Your task to perform on an android device: Open Reddit.com Image 0: 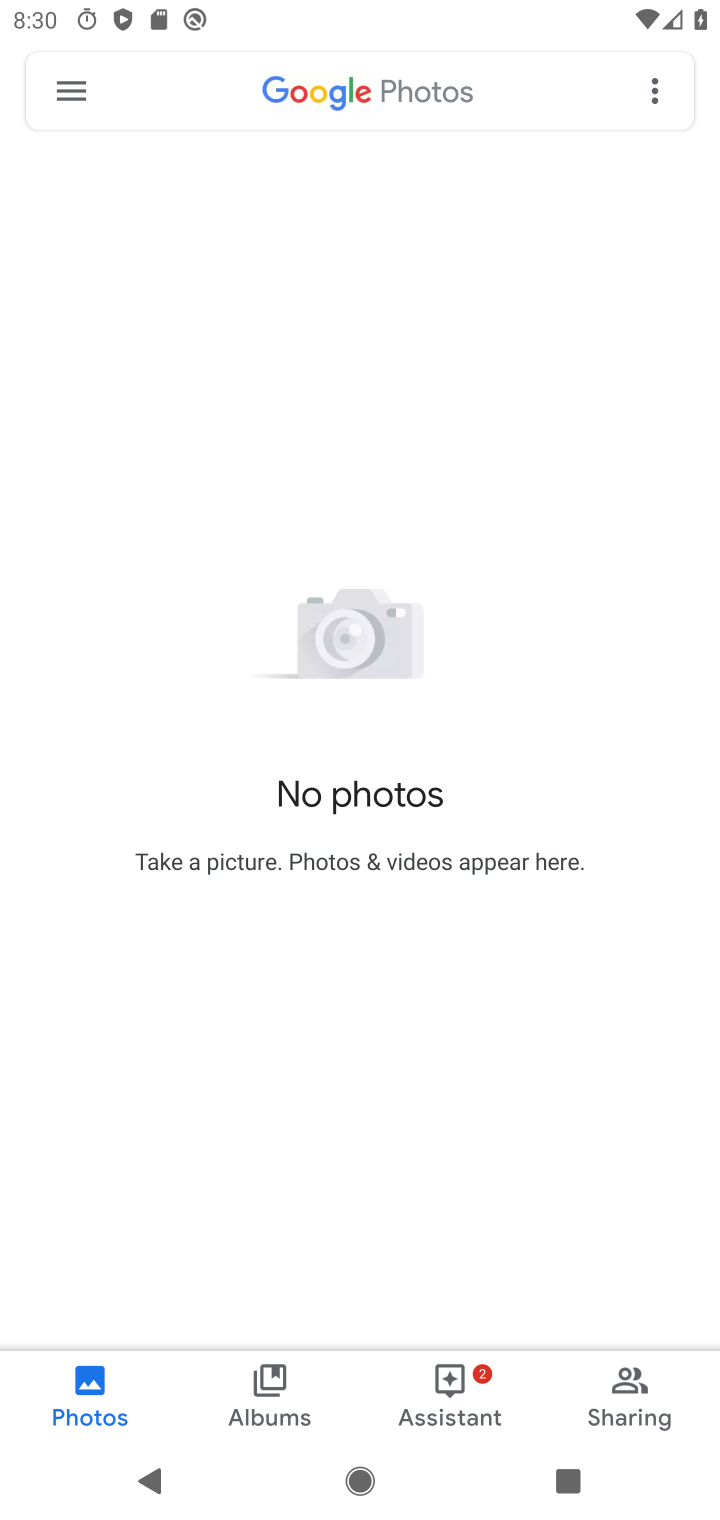
Step 0: press home button
Your task to perform on an android device: Open Reddit.com Image 1: 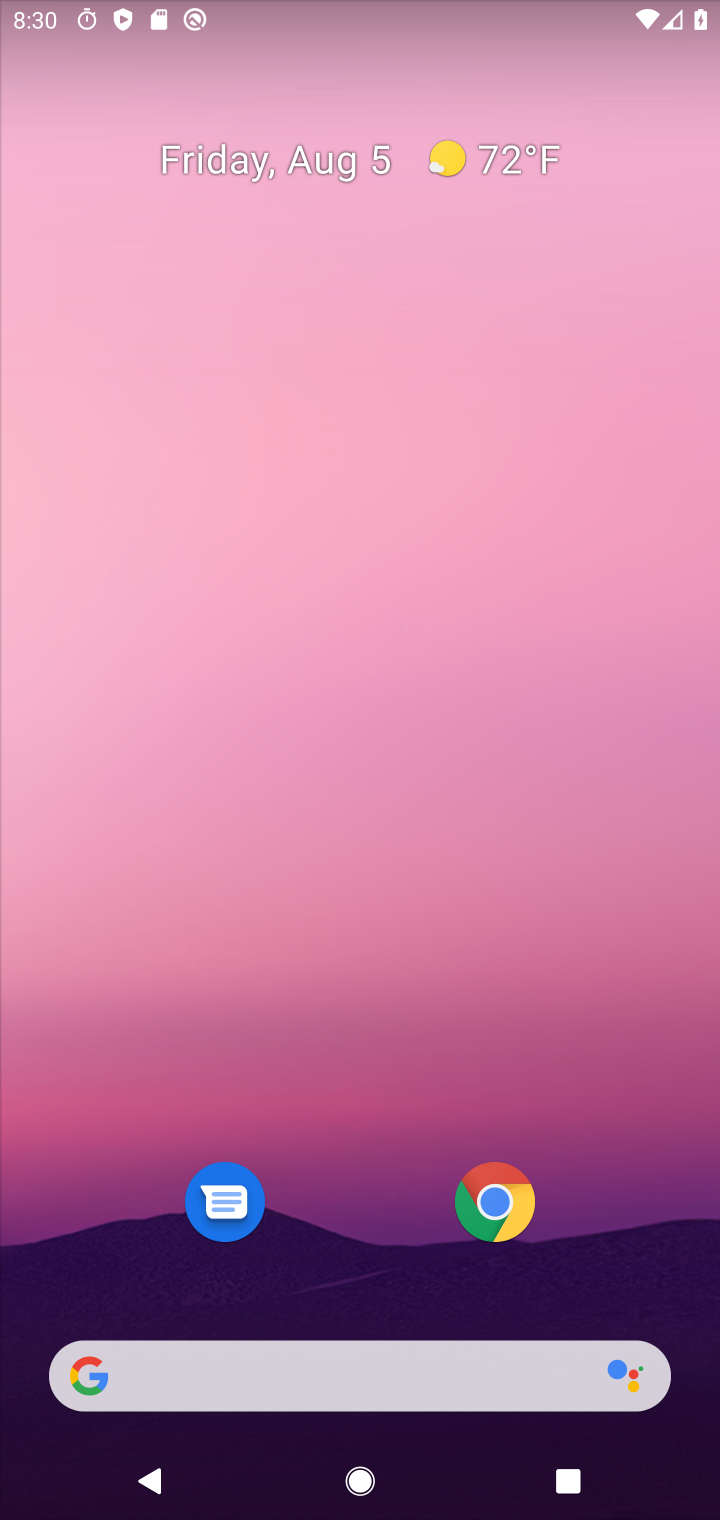
Step 1: click (511, 1214)
Your task to perform on an android device: Open Reddit.com Image 2: 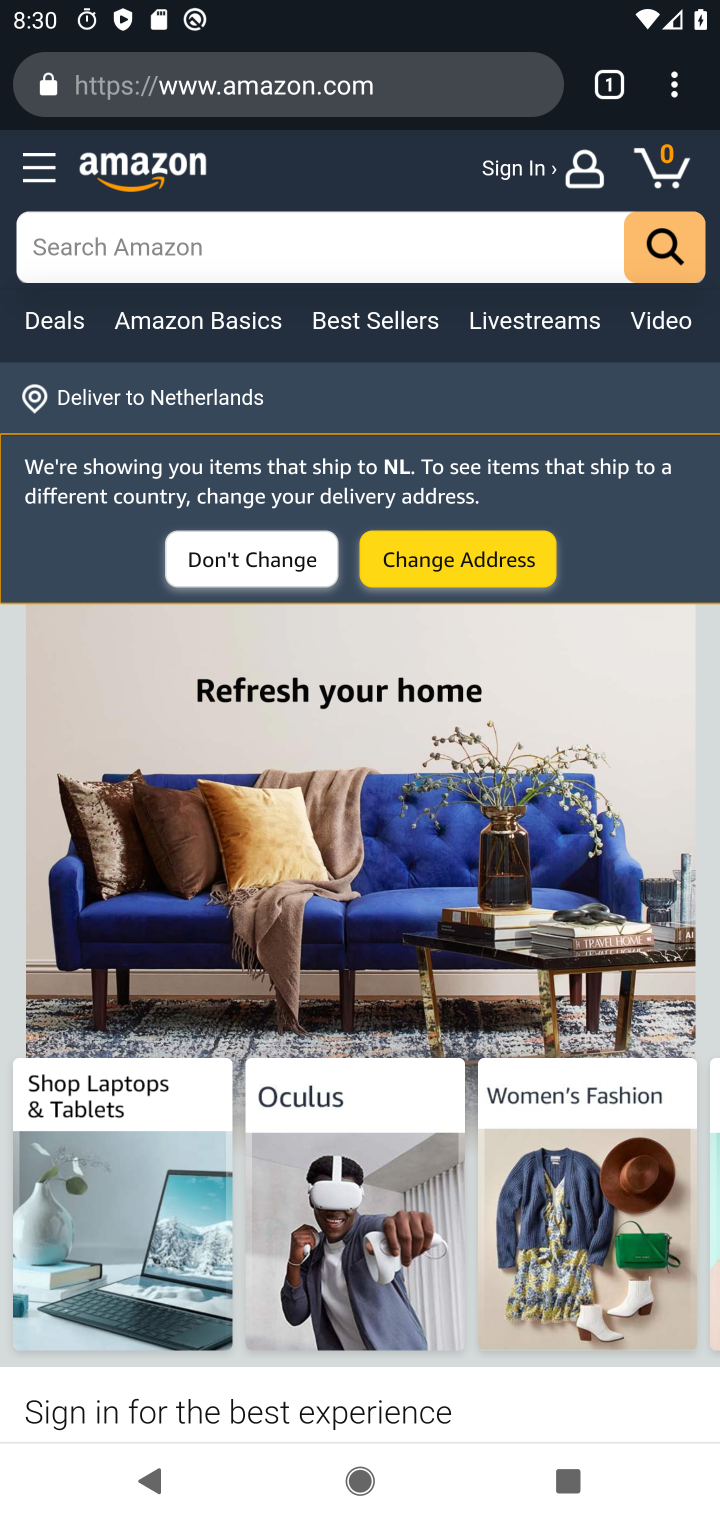
Step 2: click (222, 92)
Your task to perform on an android device: Open Reddit.com Image 3: 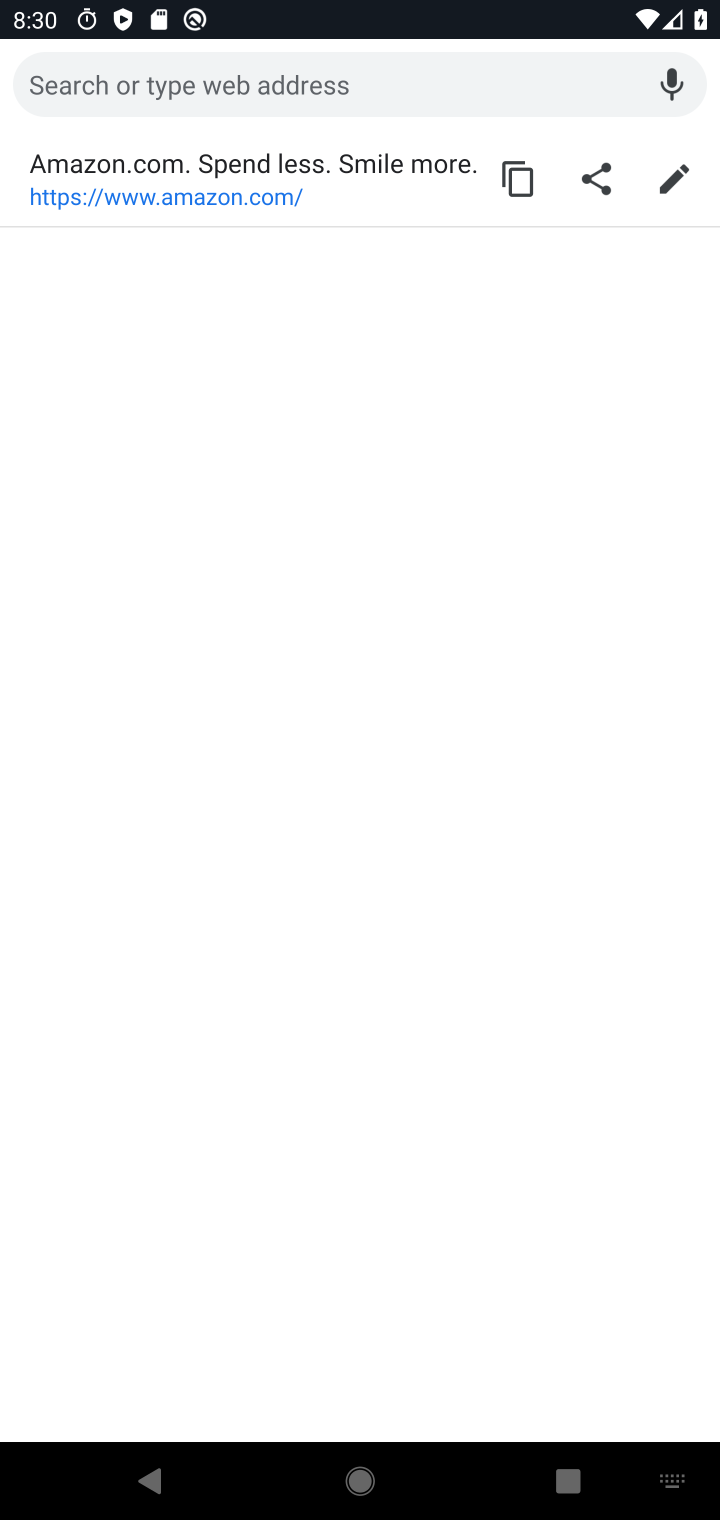
Step 3: type "reddit.com"
Your task to perform on an android device: Open Reddit.com Image 4: 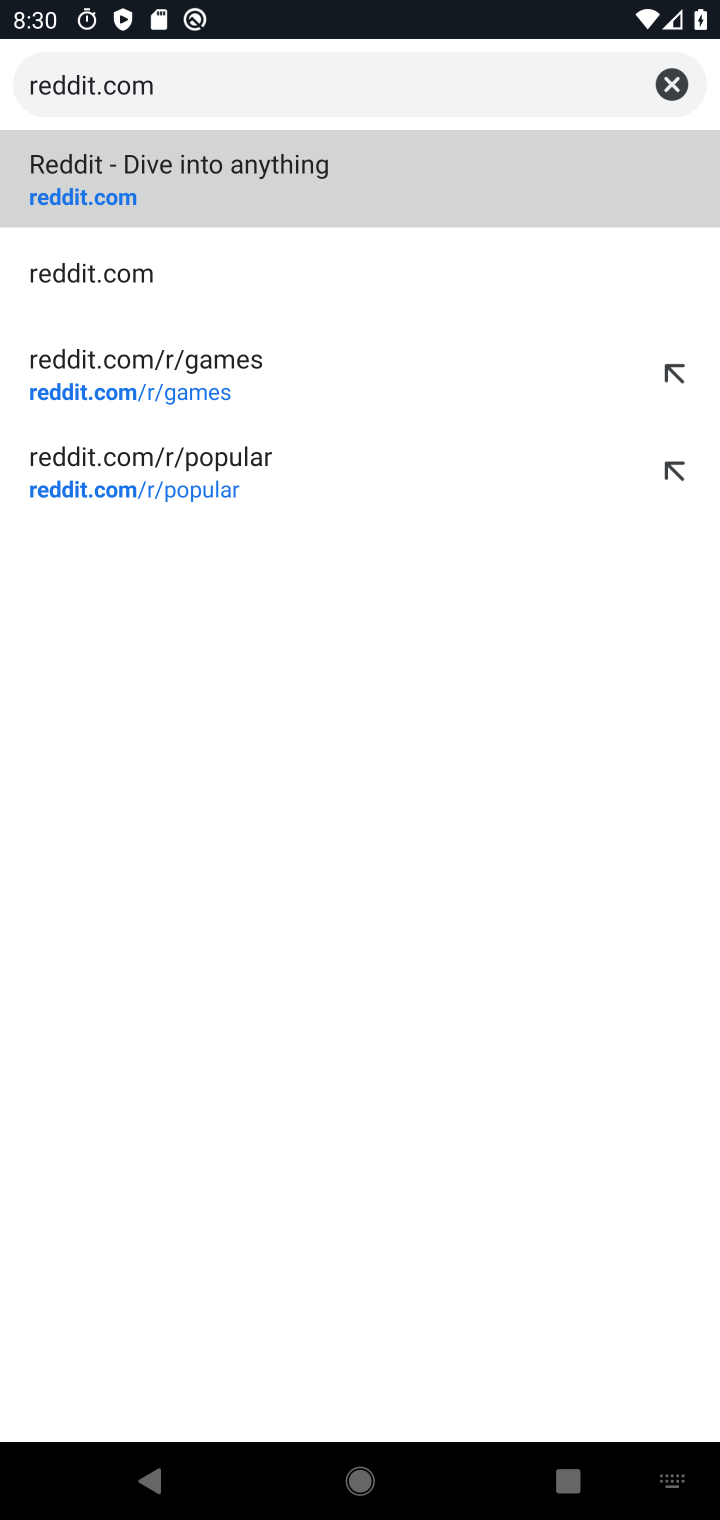
Step 4: click (163, 173)
Your task to perform on an android device: Open Reddit.com Image 5: 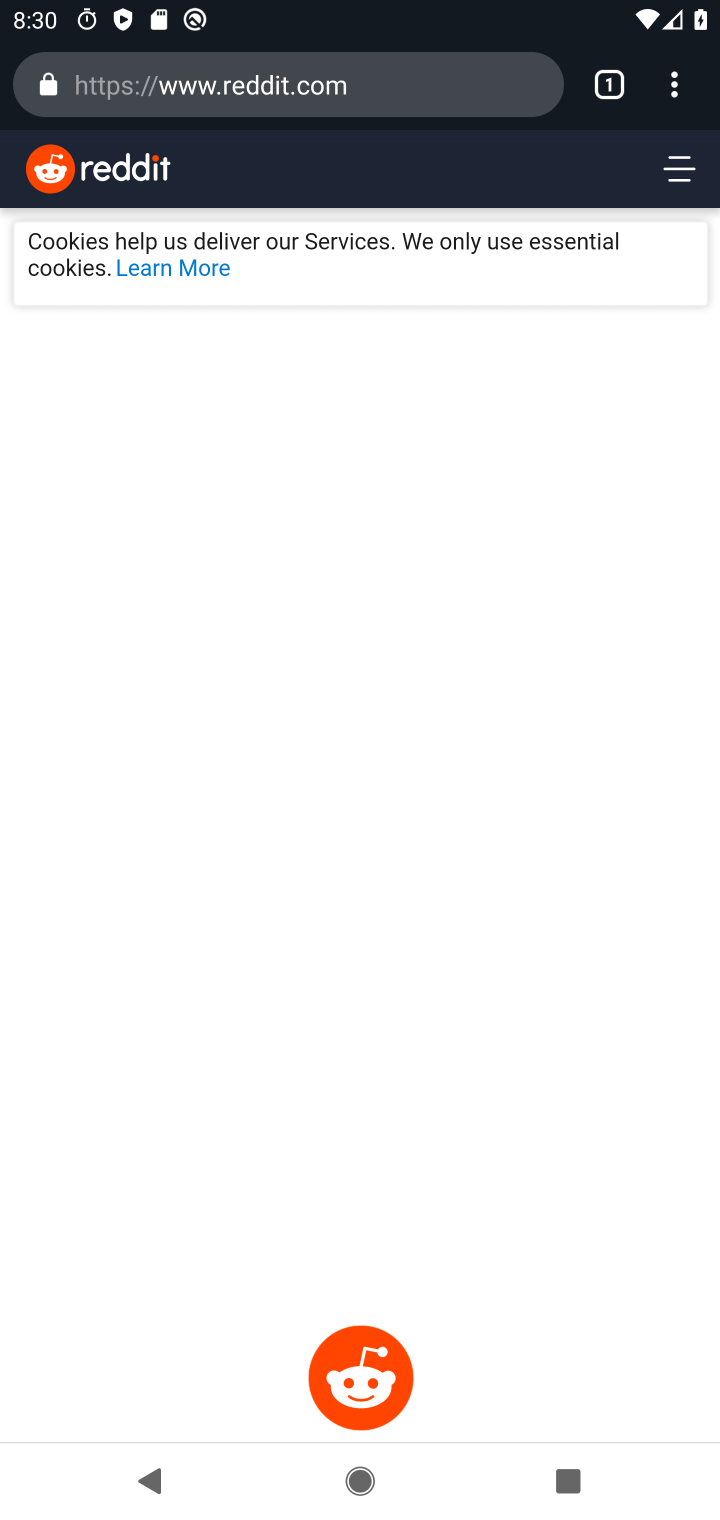
Step 5: task complete